Your task to perform on an android device: turn pop-ups off in chrome Image 0: 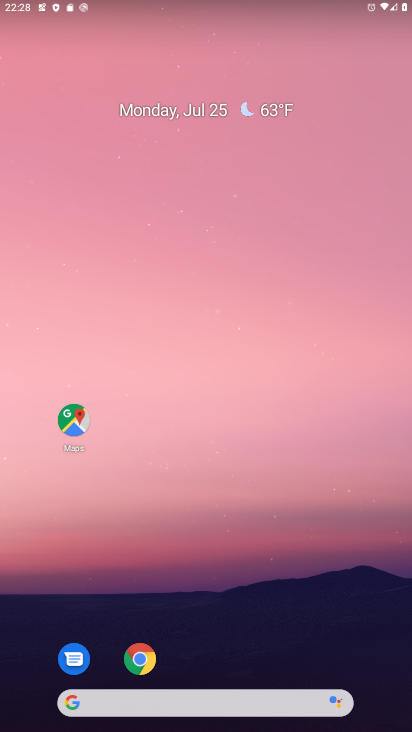
Step 0: click (145, 658)
Your task to perform on an android device: turn pop-ups off in chrome Image 1: 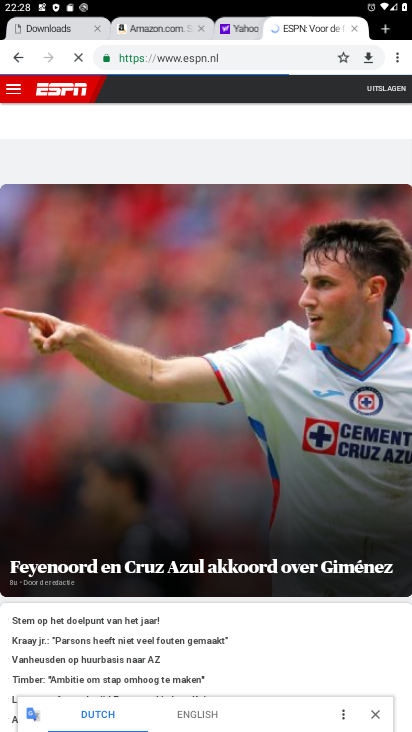
Step 1: click (396, 57)
Your task to perform on an android device: turn pop-ups off in chrome Image 2: 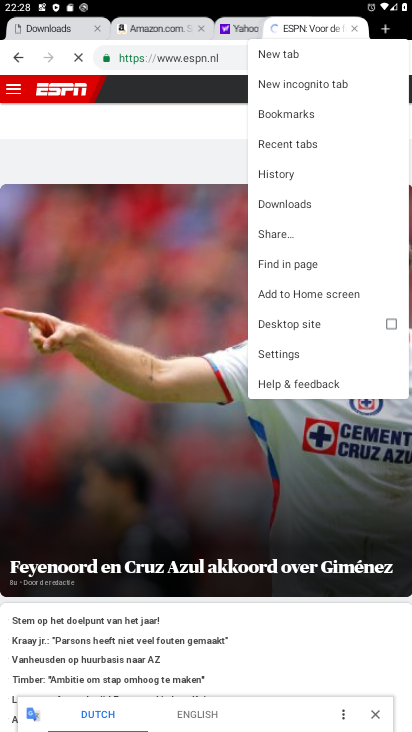
Step 2: click (280, 353)
Your task to perform on an android device: turn pop-ups off in chrome Image 3: 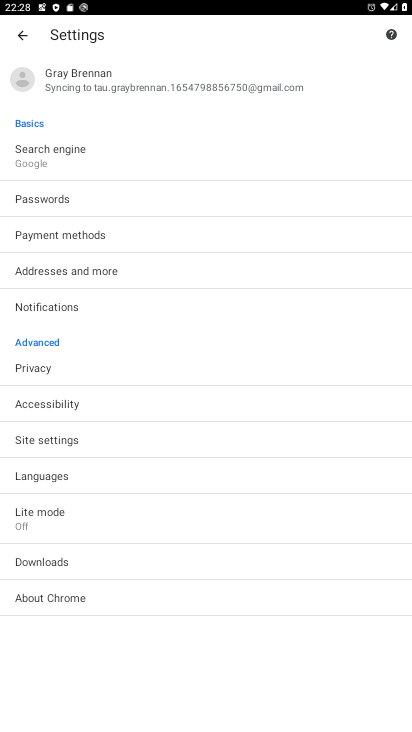
Step 3: click (40, 442)
Your task to perform on an android device: turn pop-ups off in chrome Image 4: 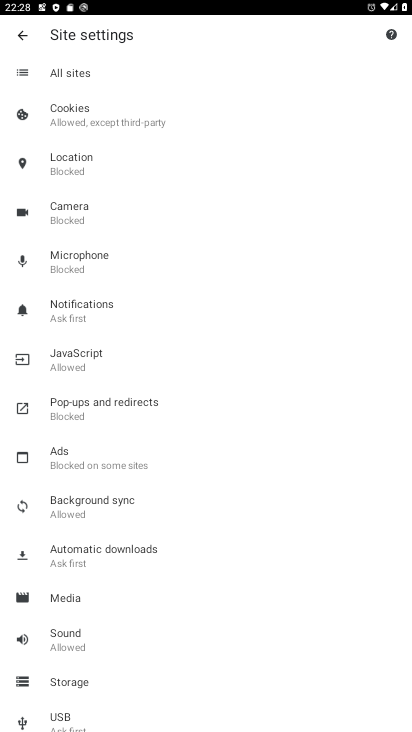
Step 4: click (63, 405)
Your task to perform on an android device: turn pop-ups off in chrome Image 5: 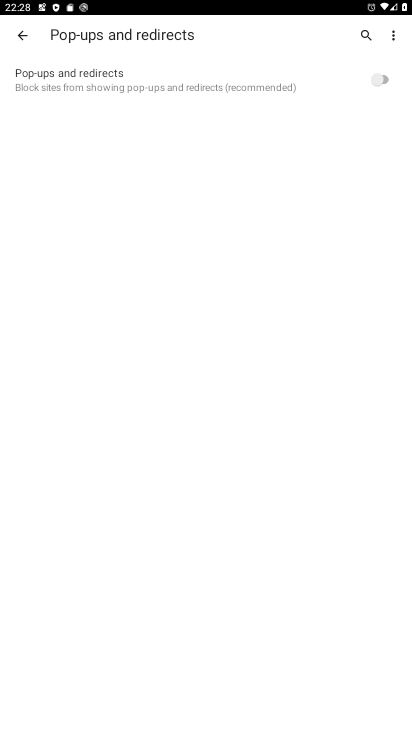
Step 5: task complete